Your task to perform on an android device: empty trash in the gmail app Image 0: 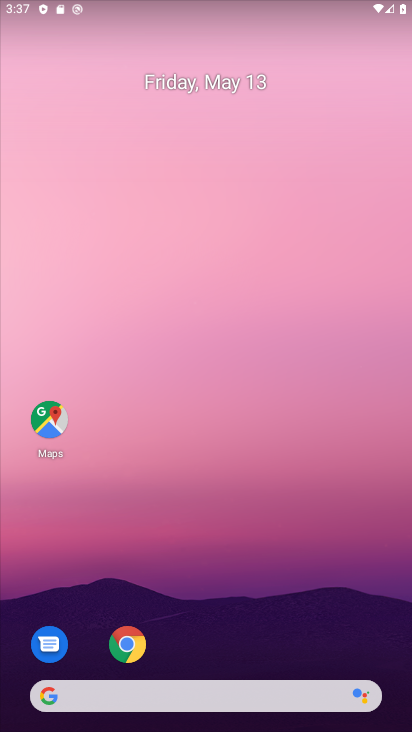
Step 0: drag from (308, 532) to (257, 148)
Your task to perform on an android device: empty trash in the gmail app Image 1: 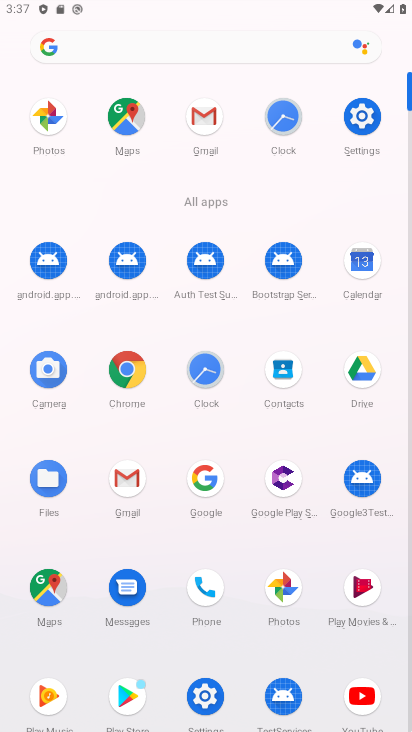
Step 1: click (201, 126)
Your task to perform on an android device: empty trash in the gmail app Image 2: 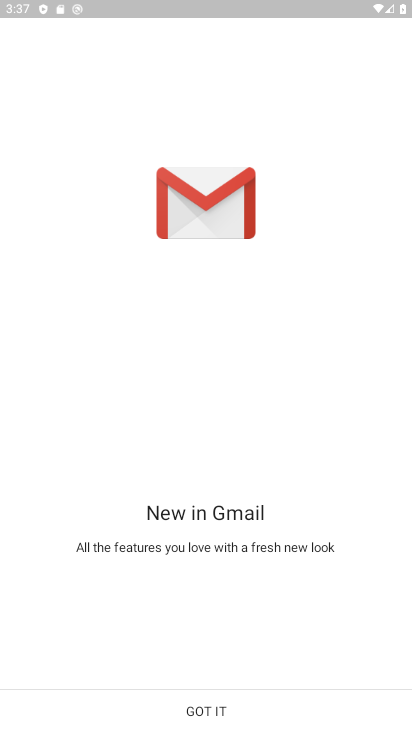
Step 2: click (304, 724)
Your task to perform on an android device: empty trash in the gmail app Image 3: 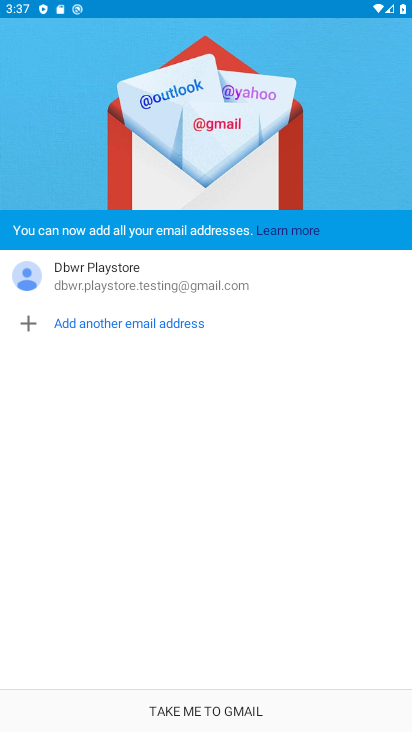
Step 3: click (228, 699)
Your task to perform on an android device: empty trash in the gmail app Image 4: 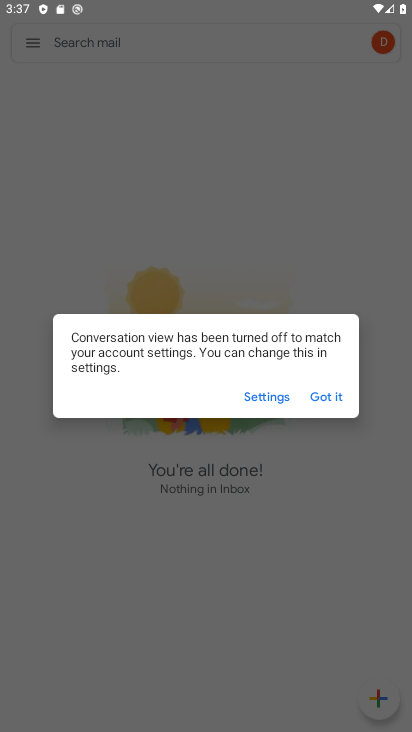
Step 4: click (334, 392)
Your task to perform on an android device: empty trash in the gmail app Image 5: 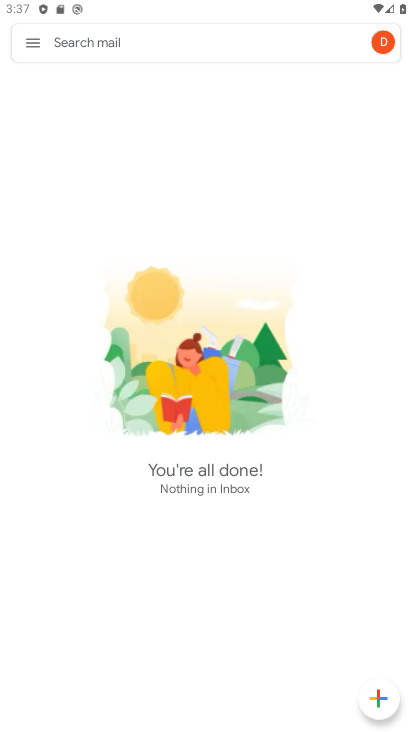
Step 5: click (35, 49)
Your task to perform on an android device: empty trash in the gmail app Image 6: 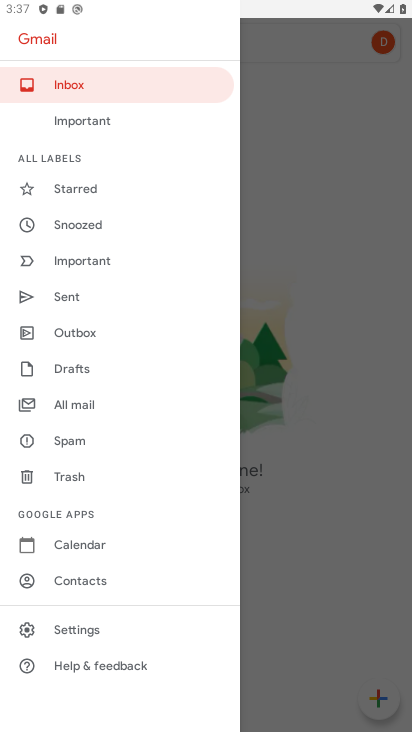
Step 6: click (99, 476)
Your task to perform on an android device: empty trash in the gmail app Image 7: 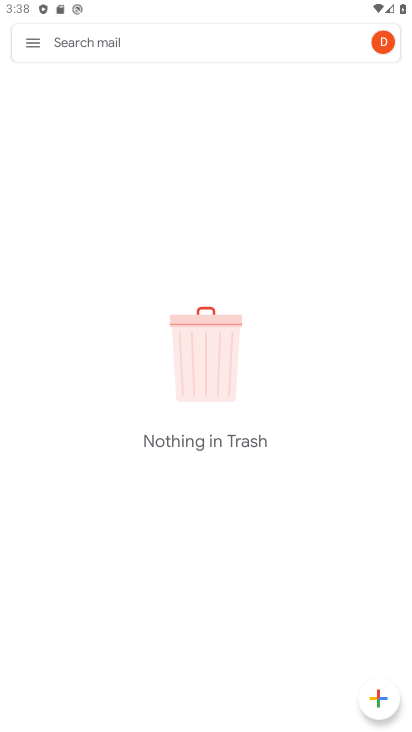
Step 7: task complete